Your task to perform on an android device: open device folders in google photos Image 0: 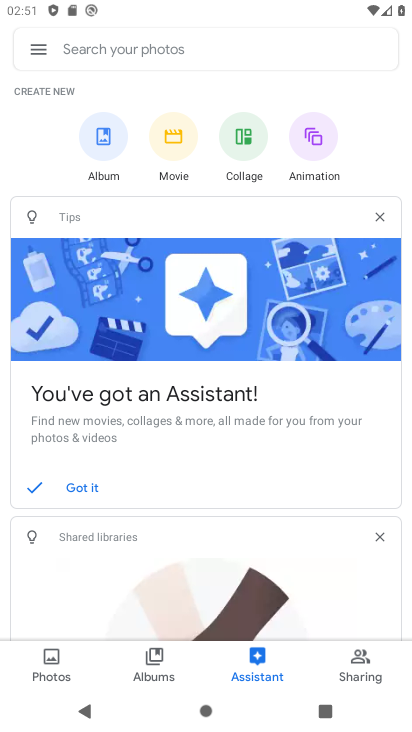
Step 0: click (28, 49)
Your task to perform on an android device: open device folders in google photos Image 1: 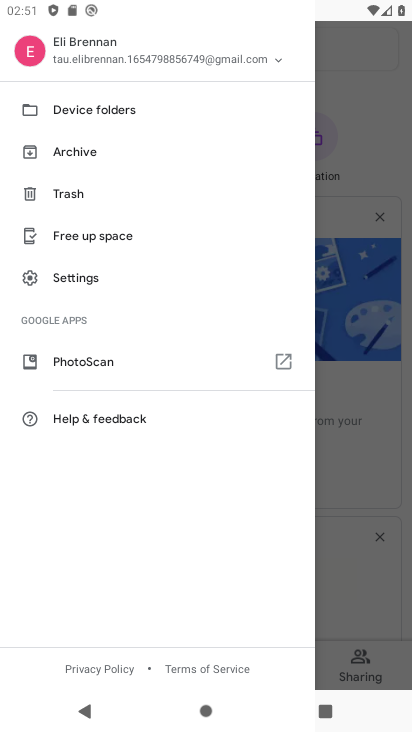
Step 1: click (112, 111)
Your task to perform on an android device: open device folders in google photos Image 2: 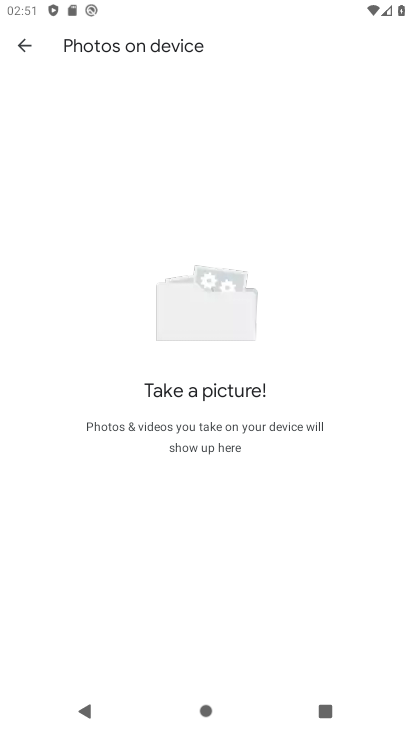
Step 2: task complete